Your task to perform on an android device: delete browsing data in the chrome app Image 0: 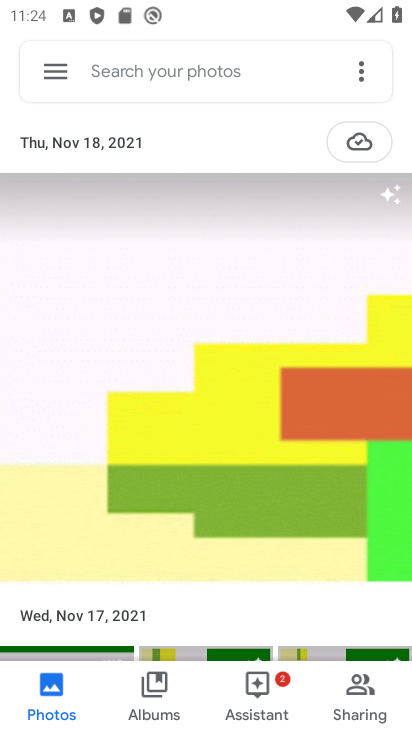
Step 0: press home button
Your task to perform on an android device: delete browsing data in the chrome app Image 1: 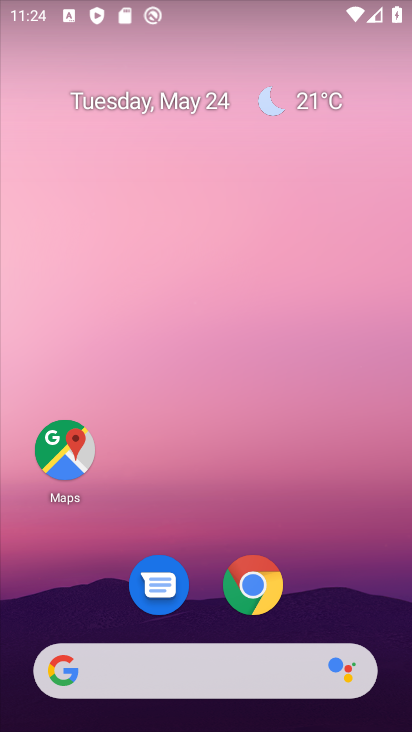
Step 1: click (269, 579)
Your task to perform on an android device: delete browsing data in the chrome app Image 2: 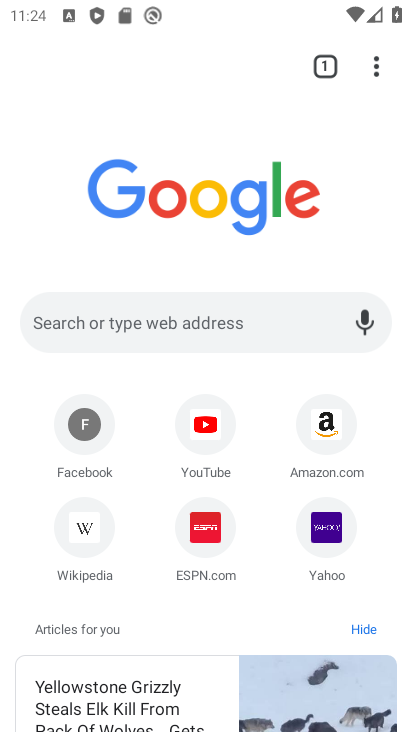
Step 2: click (374, 66)
Your task to perform on an android device: delete browsing data in the chrome app Image 3: 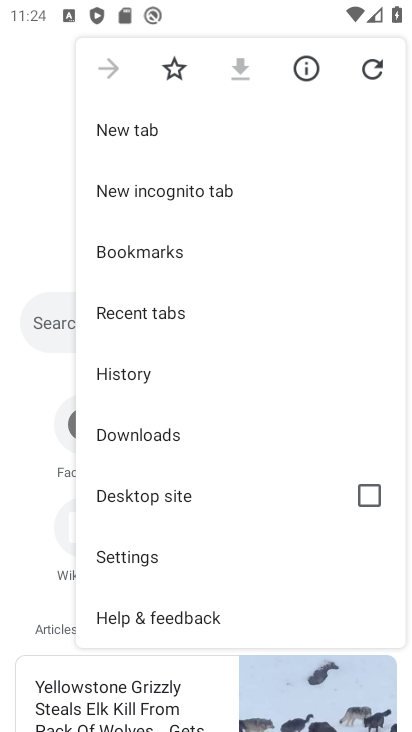
Step 3: click (137, 362)
Your task to perform on an android device: delete browsing data in the chrome app Image 4: 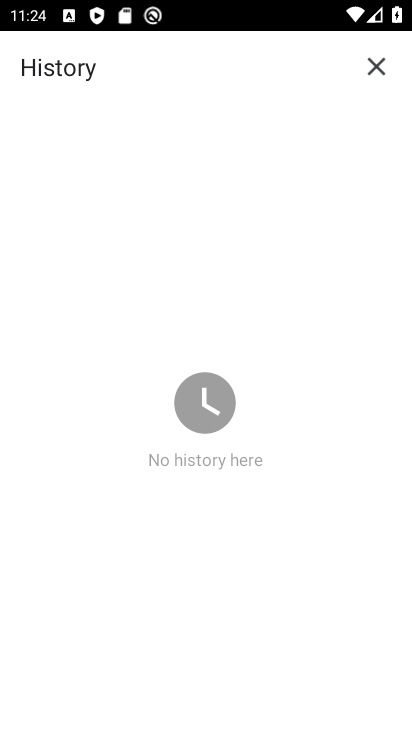
Step 4: task complete